Your task to perform on an android device: open chrome privacy settings Image 0: 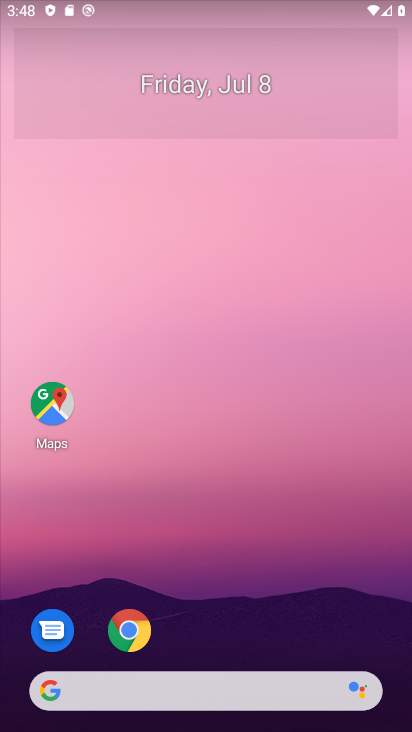
Step 0: click (128, 624)
Your task to perform on an android device: open chrome privacy settings Image 1: 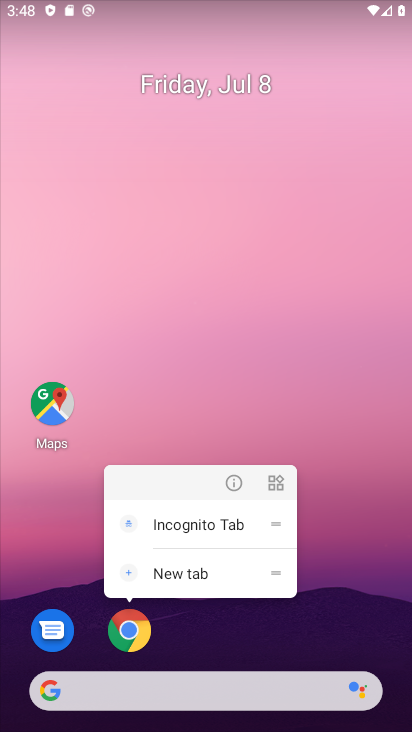
Step 1: click (129, 626)
Your task to perform on an android device: open chrome privacy settings Image 2: 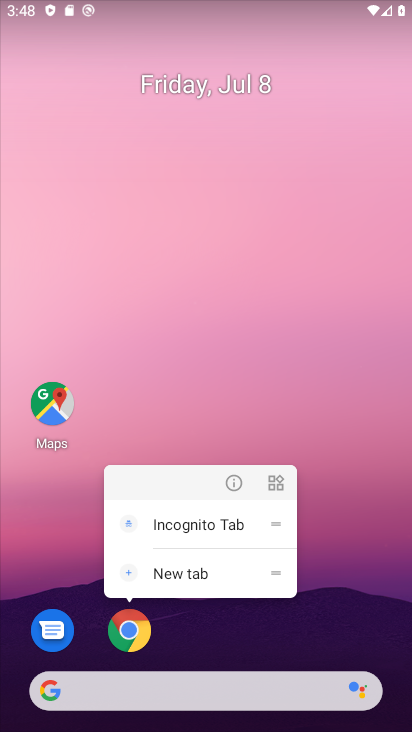
Step 2: click (144, 642)
Your task to perform on an android device: open chrome privacy settings Image 3: 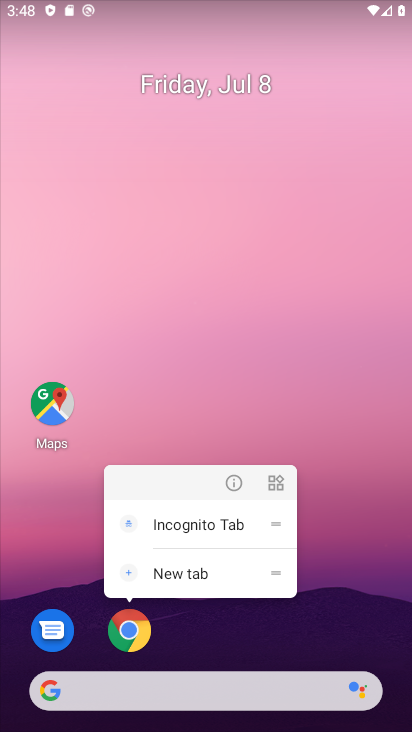
Step 3: task complete